Your task to perform on an android device: see tabs open on other devices in the chrome app Image 0: 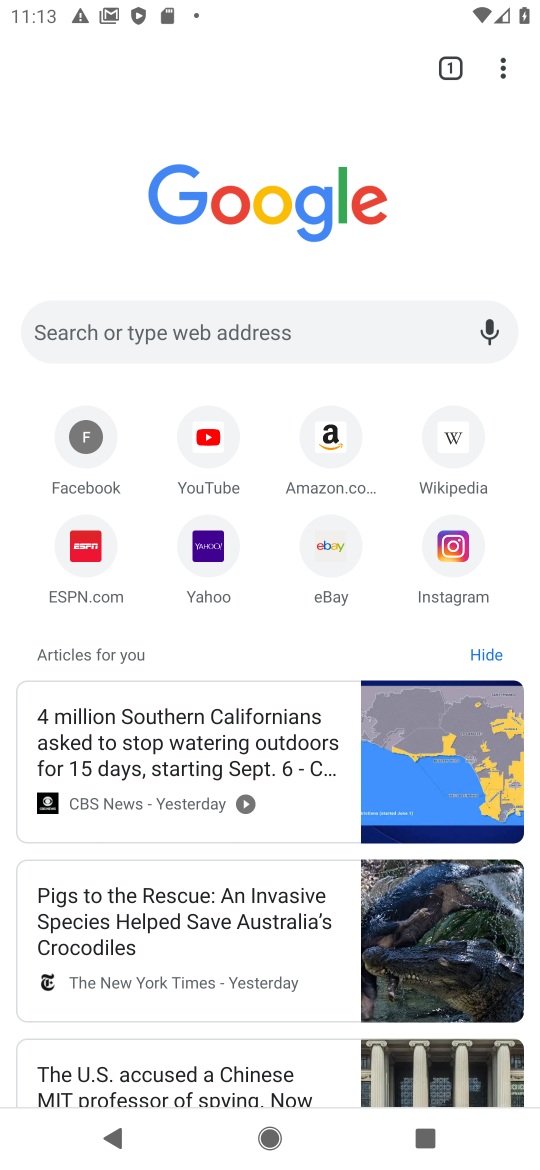
Step 0: click (515, 65)
Your task to perform on an android device: see tabs open on other devices in the chrome app Image 1: 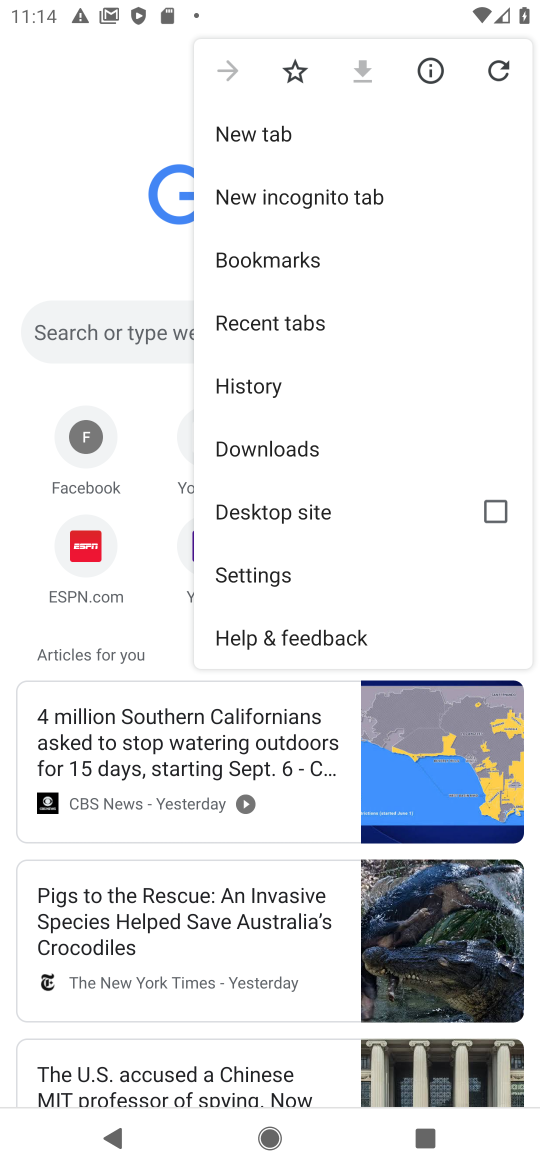
Step 1: click (356, 317)
Your task to perform on an android device: see tabs open on other devices in the chrome app Image 2: 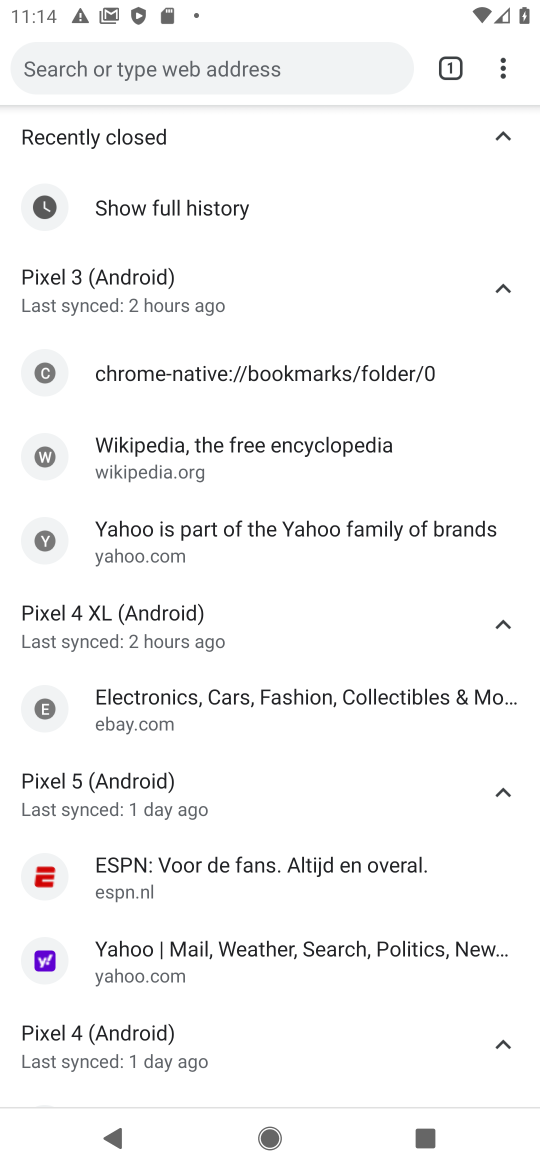
Step 2: task complete